Your task to perform on an android device: turn pop-ups on in chrome Image 0: 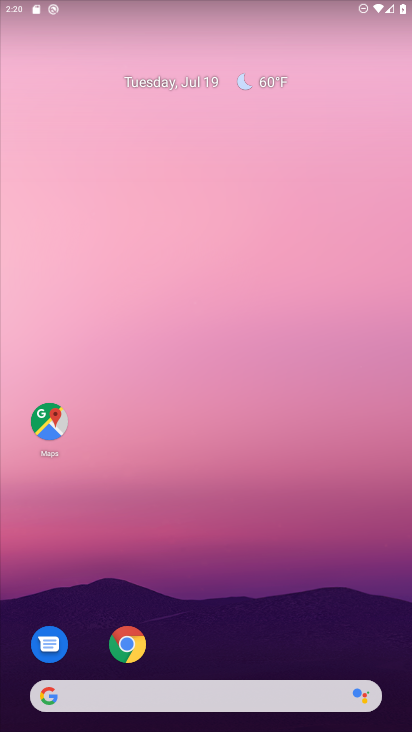
Step 0: click (123, 649)
Your task to perform on an android device: turn pop-ups on in chrome Image 1: 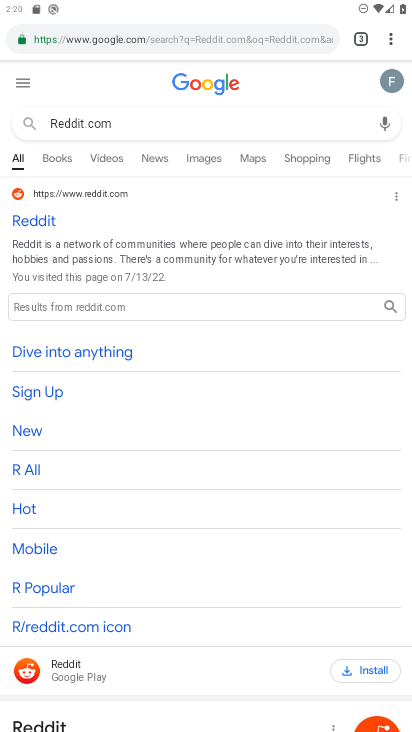
Step 1: click (389, 37)
Your task to perform on an android device: turn pop-ups on in chrome Image 2: 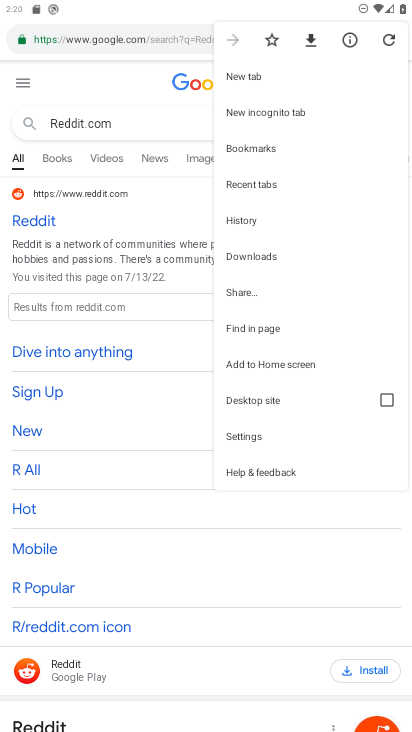
Step 2: click (238, 438)
Your task to perform on an android device: turn pop-ups on in chrome Image 3: 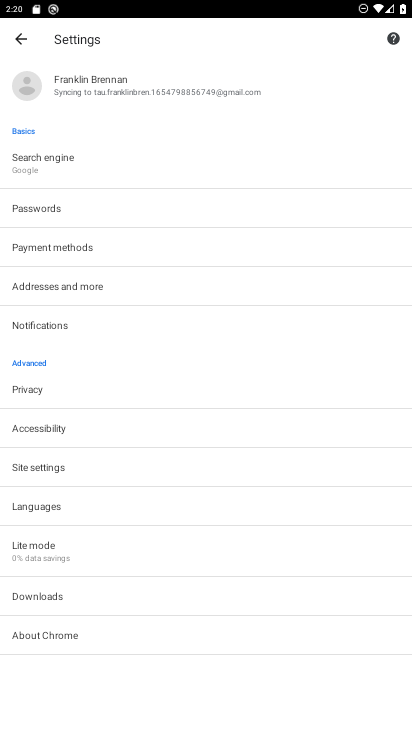
Step 3: click (35, 468)
Your task to perform on an android device: turn pop-ups on in chrome Image 4: 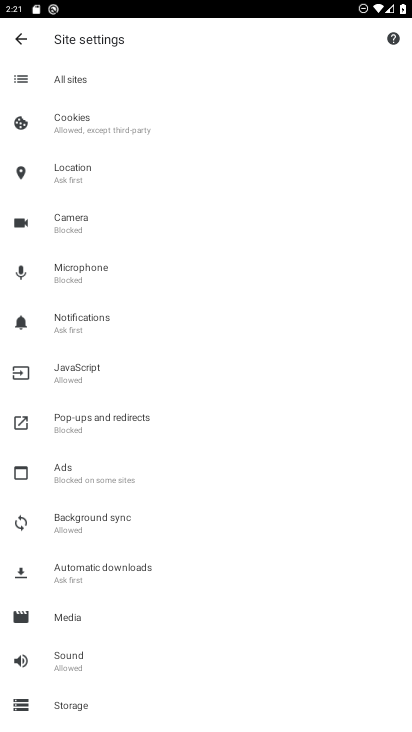
Step 4: click (104, 416)
Your task to perform on an android device: turn pop-ups on in chrome Image 5: 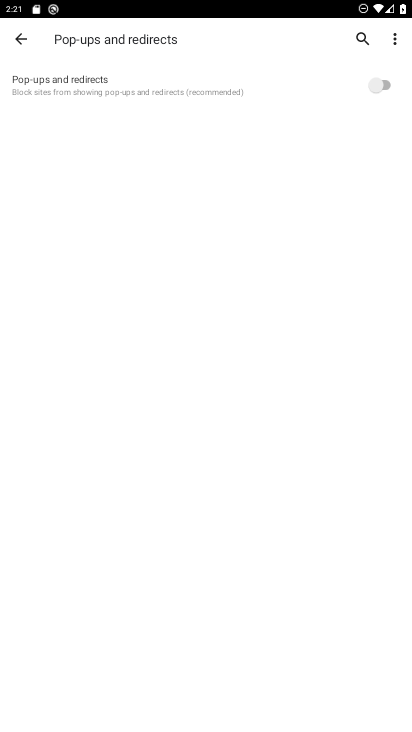
Step 5: click (381, 86)
Your task to perform on an android device: turn pop-ups on in chrome Image 6: 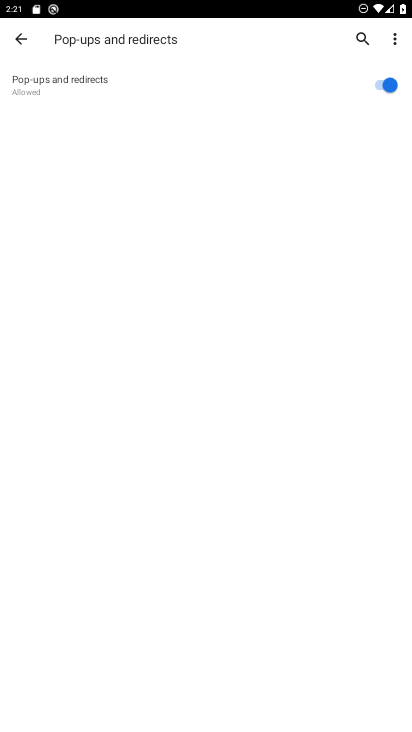
Step 6: task complete